Your task to perform on an android device: Open Youtube and go to "Your channel" Image 0: 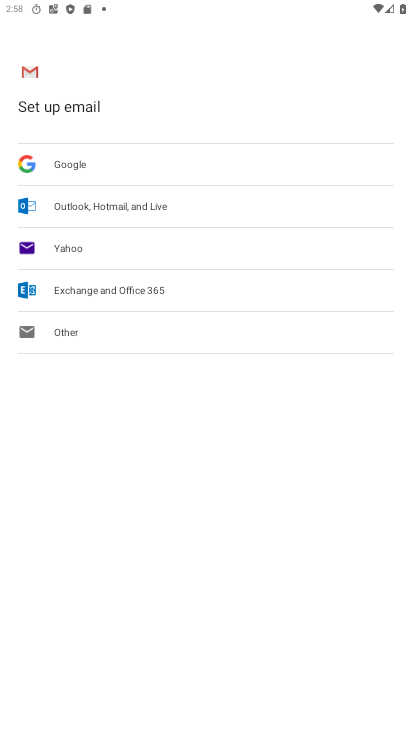
Step 0: press back button
Your task to perform on an android device: Open Youtube and go to "Your channel" Image 1: 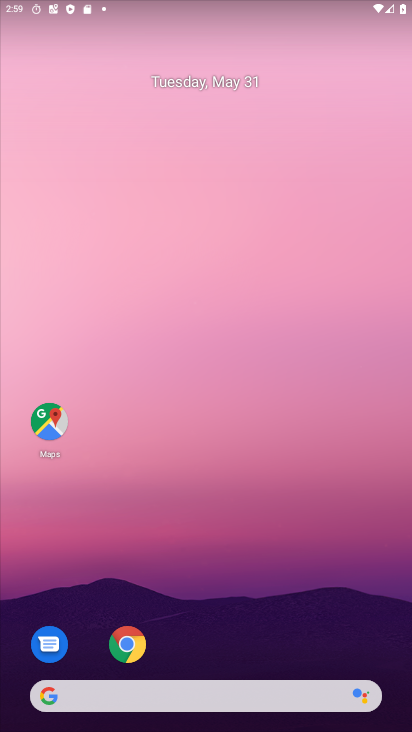
Step 1: drag from (401, 693) to (388, 181)
Your task to perform on an android device: Open Youtube and go to "Your channel" Image 2: 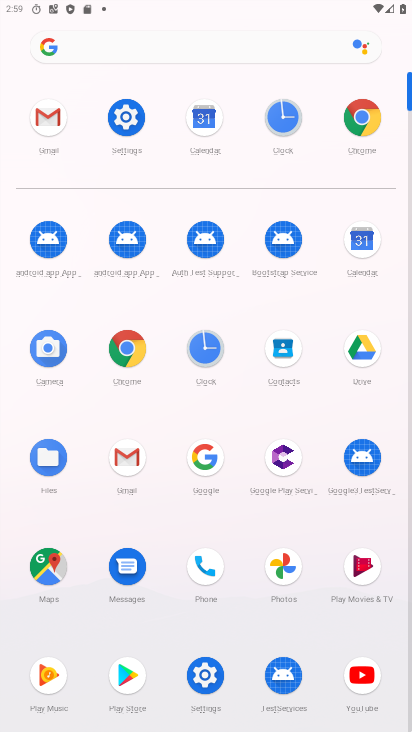
Step 2: click (358, 669)
Your task to perform on an android device: Open Youtube and go to "Your channel" Image 3: 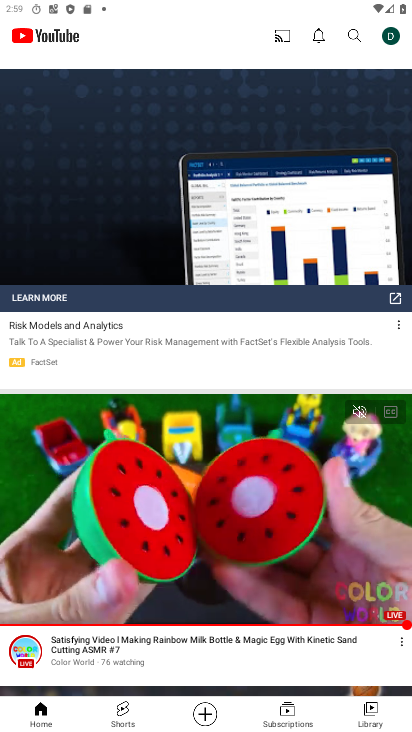
Step 3: click (387, 44)
Your task to perform on an android device: Open Youtube and go to "Your channel" Image 4: 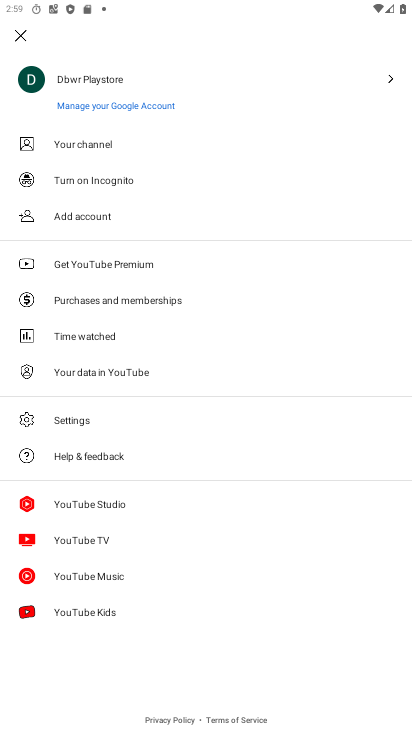
Step 4: click (75, 150)
Your task to perform on an android device: Open Youtube and go to "Your channel" Image 5: 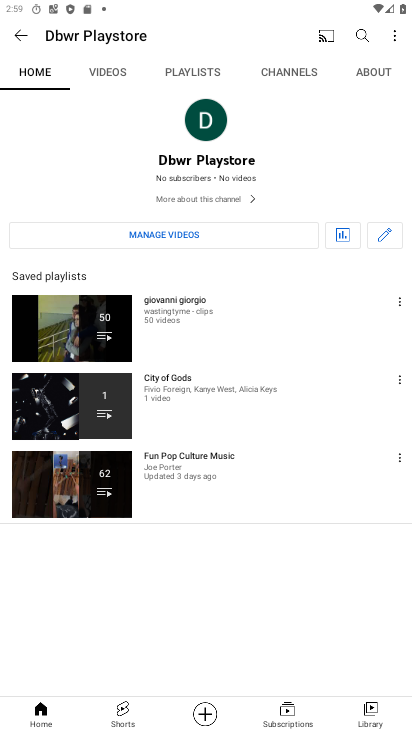
Step 5: task complete